Your task to perform on an android device: toggle notifications settings in the gmail app Image 0: 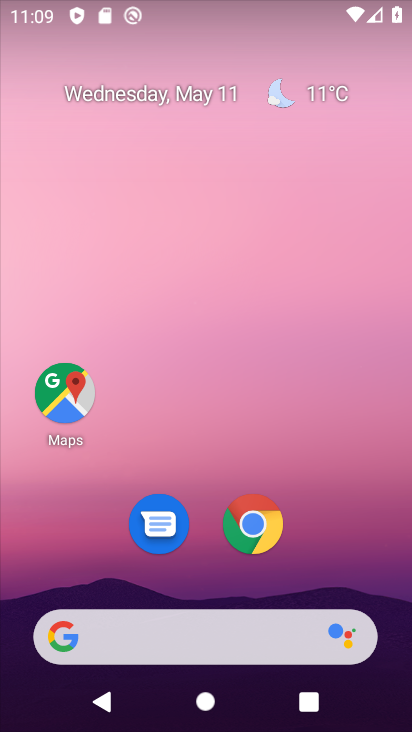
Step 0: drag from (334, 503) to (347, 76)
Your task to perform on an android device: toggle notifications settings in the gmail app Image 1: 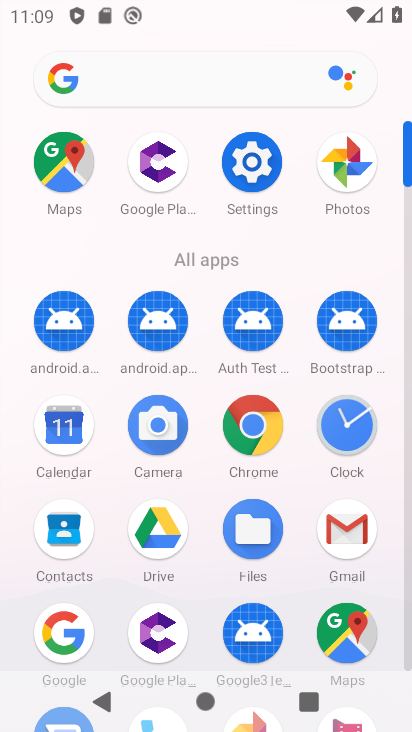
Step 1: click (347, 529)
Your task to perform on an android device: toggle notifications settings in the gmail app Image 2: 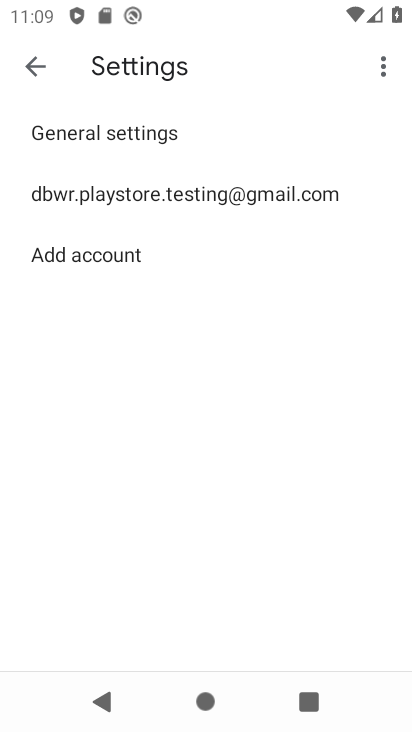
Step 2: click (100, 131)
Your task to perform on an android device: toggle notifications settings in the gmail app Image 3: 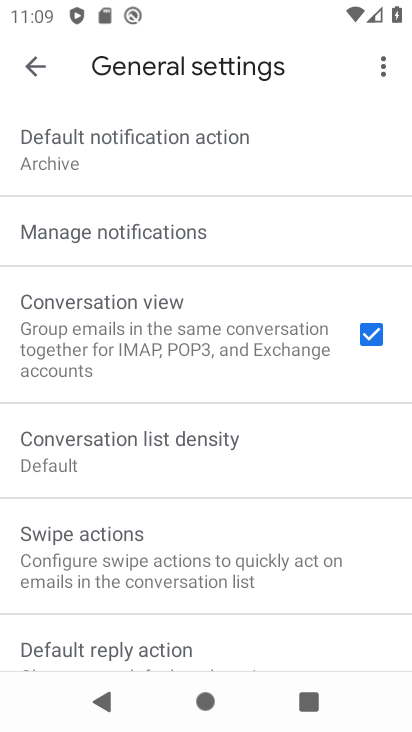
Step 3: click (133, 234)
Your task to perform on an android device: toggle notifications settings in the gmail app Image 4: 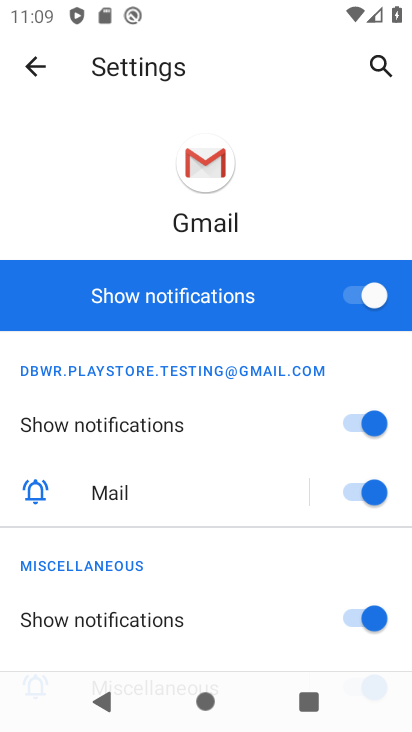
Step 4: click (353, 302)
Your task to perform on an android device: toggle notifications settings in the gmail app Image 5: 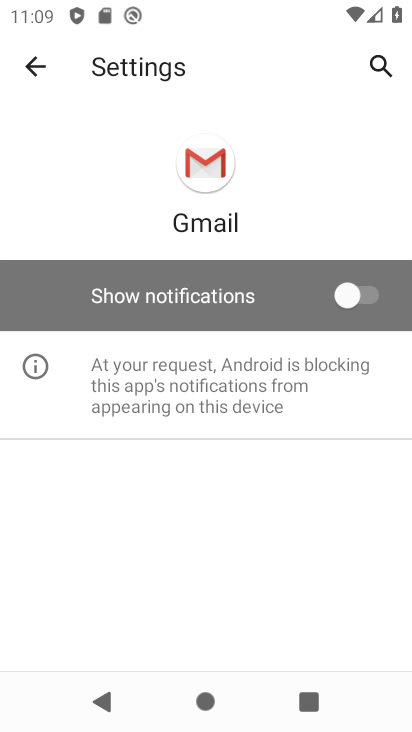
Step 5: task complete